Your task to perform on an android device: What is the news today? Image 0: 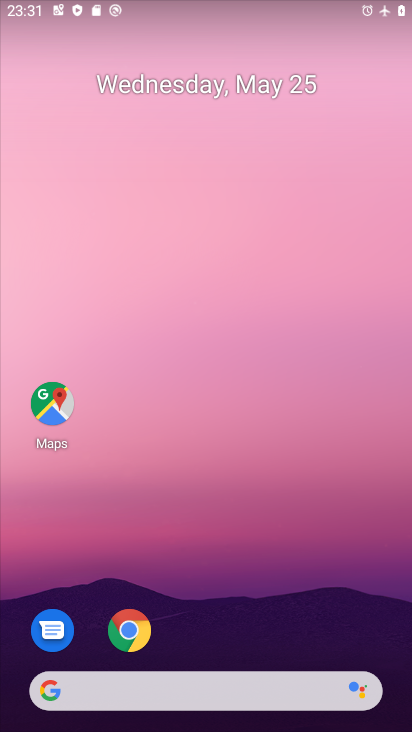
Step 0: drag from (231, 596) to (275, 140)
Your task to perform on an android device: What is the news today? Image 1: 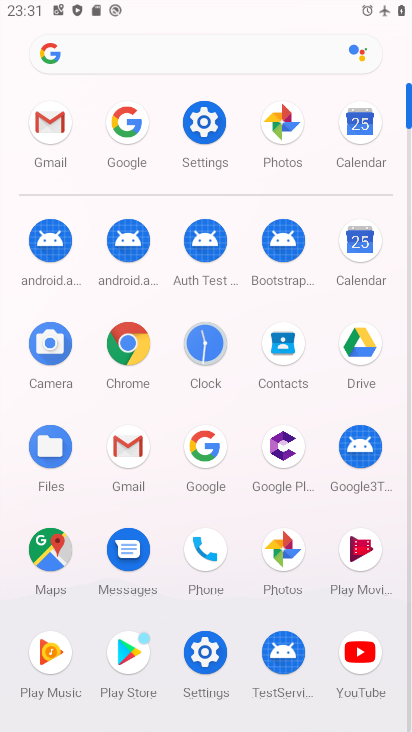
Step 1: click (197, 461)
Your task to perform on an android device: What is the news today? Image 2: 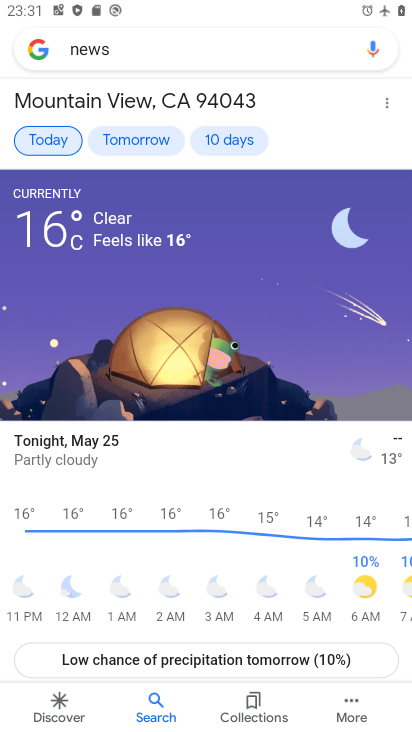
Step 2: drag from (198, 549) to (224, 327)
Your task to perform on an android device: What is the news today? Image 3: 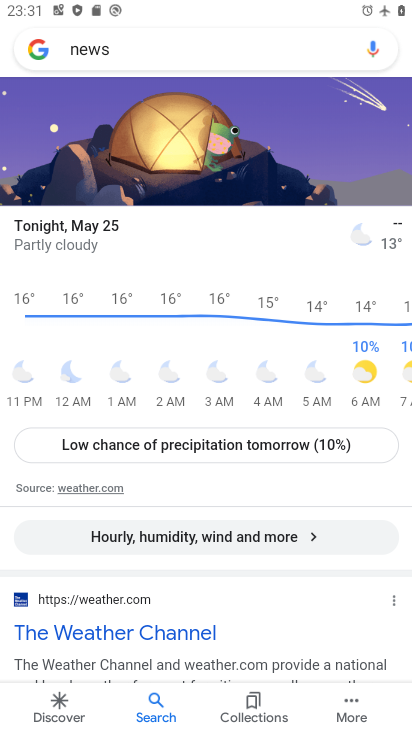
Step 3: drag from (186, 105) to (189, 480)
Your task to perform on an android device: What is the news today? Image 4: 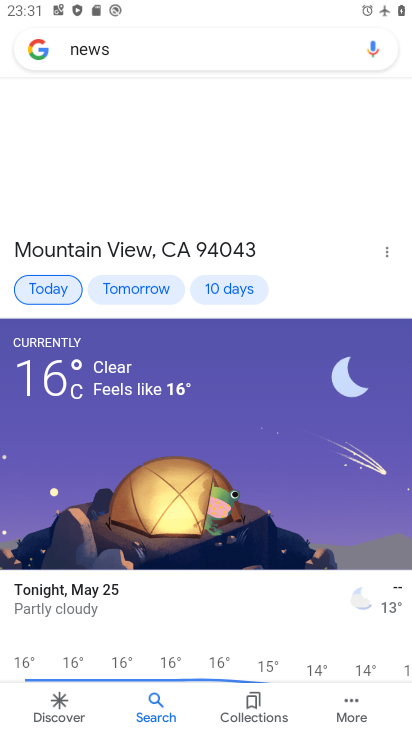
Step 4: press back button
Your task to perform on an android device: What is the news today? Image 5: 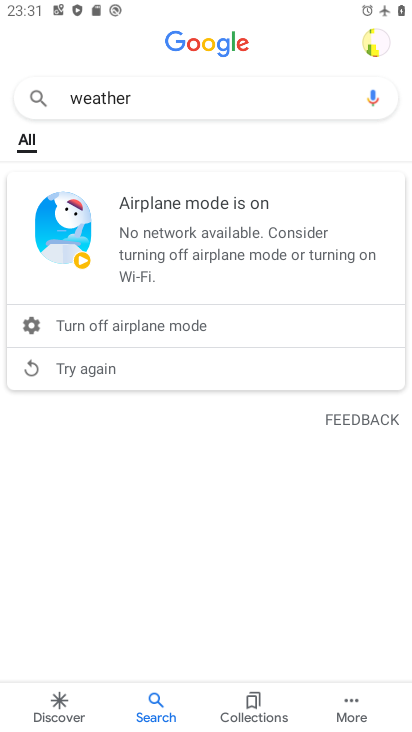
Step 5: click (160, 98)
Your task to perform on an android device: What is the news today? Image 6: 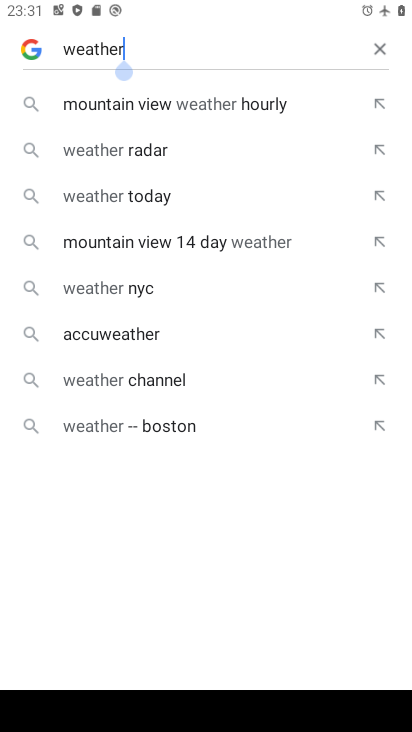
Step 6: click (378, 44)
Your task to perform on an android device: What is the news today? Image 7: 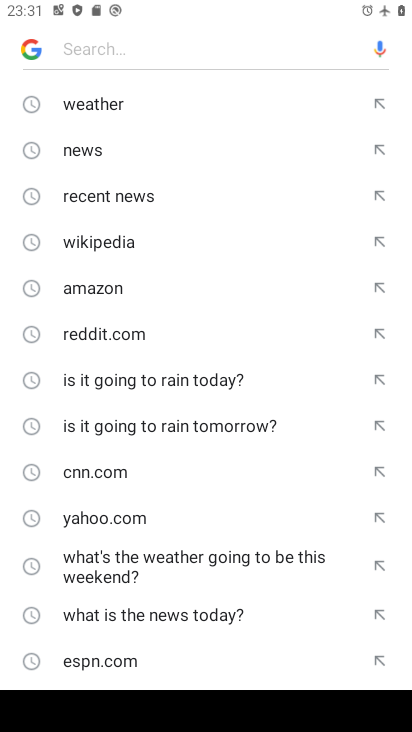
Step 7: click (91, 146)
Your task to perform on an android device: What is the news today? Image 8: 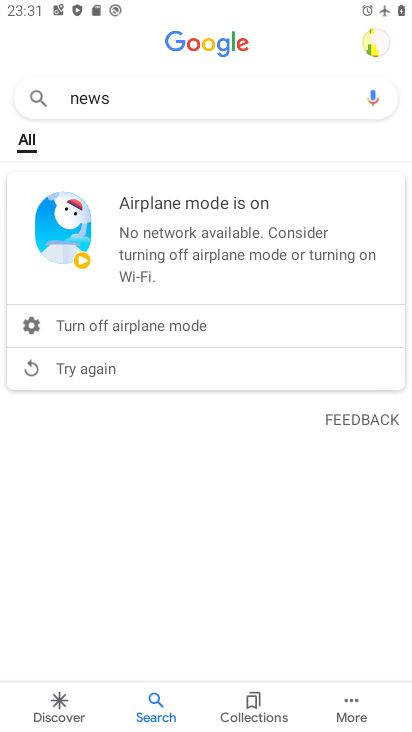
Step 8: task complete